Your task to perform on an android device: install app "DoorDash - Dasher" Image 0: 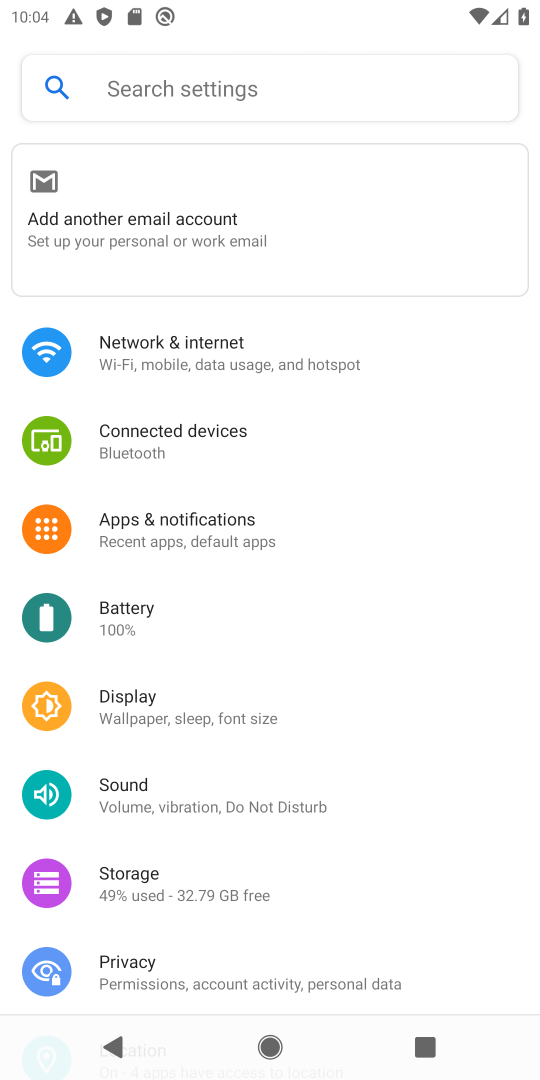
Step 0: press home button
Your task to perform on an android device: install app "DoorDash - Dasher" Image 1: 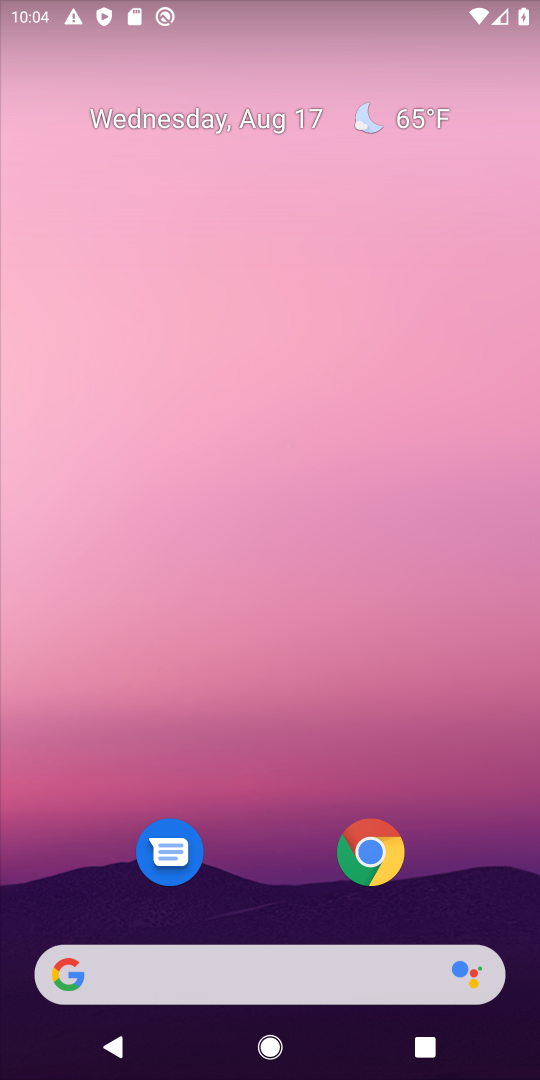
Step 1: drag from (501, 818) to (400, 75)
Your task to perform on an android device: install app "DoorDash - Dasher" Image 2: 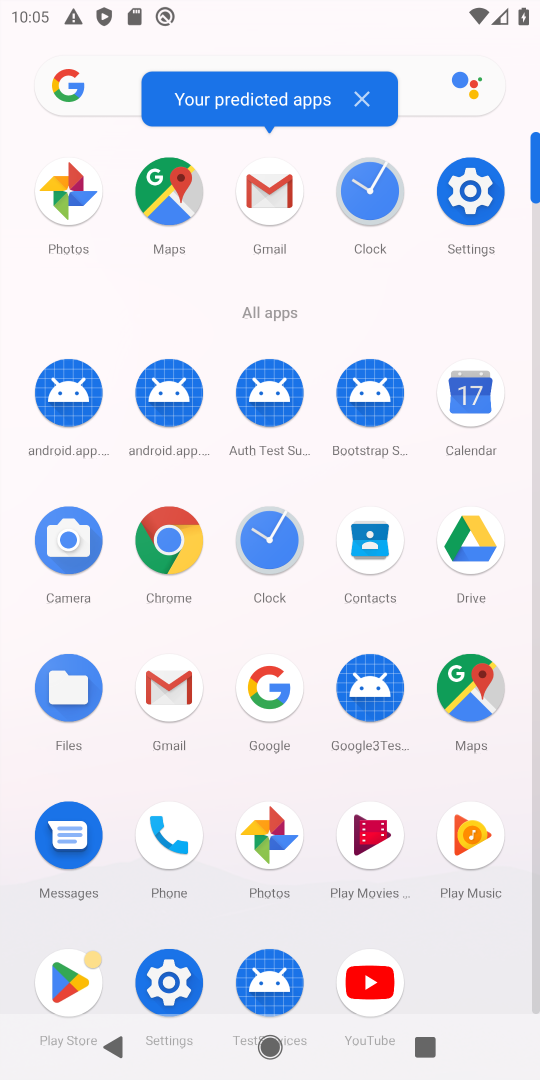
Step 2: click (97, 995)
Your task to perform on an android device: install app "DoorDash - Dasher" Image 3: 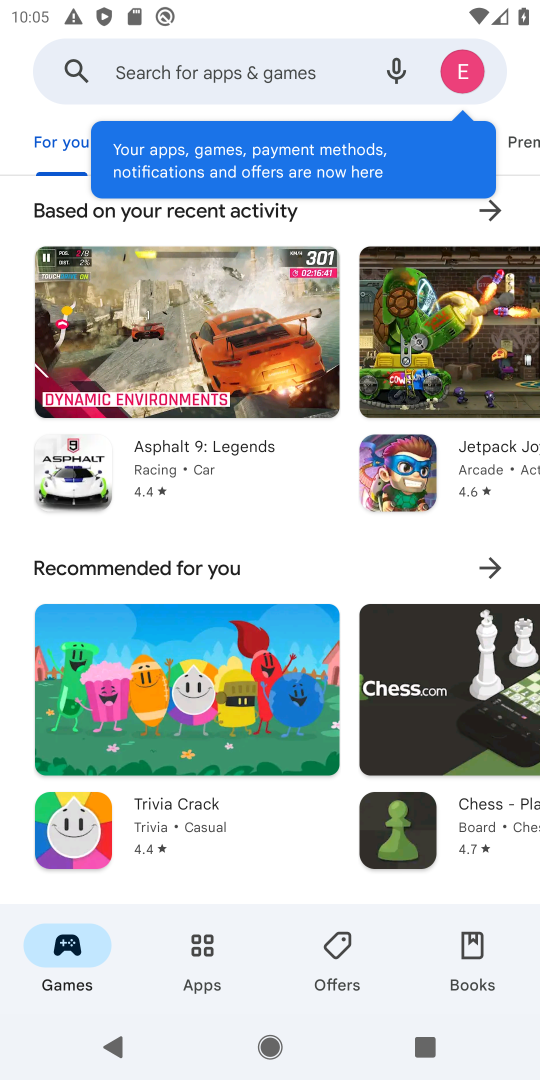
Step 3: click (252, 63)
Your task to perform on an android device: install app "DoorDash - Dasher" Image 4: 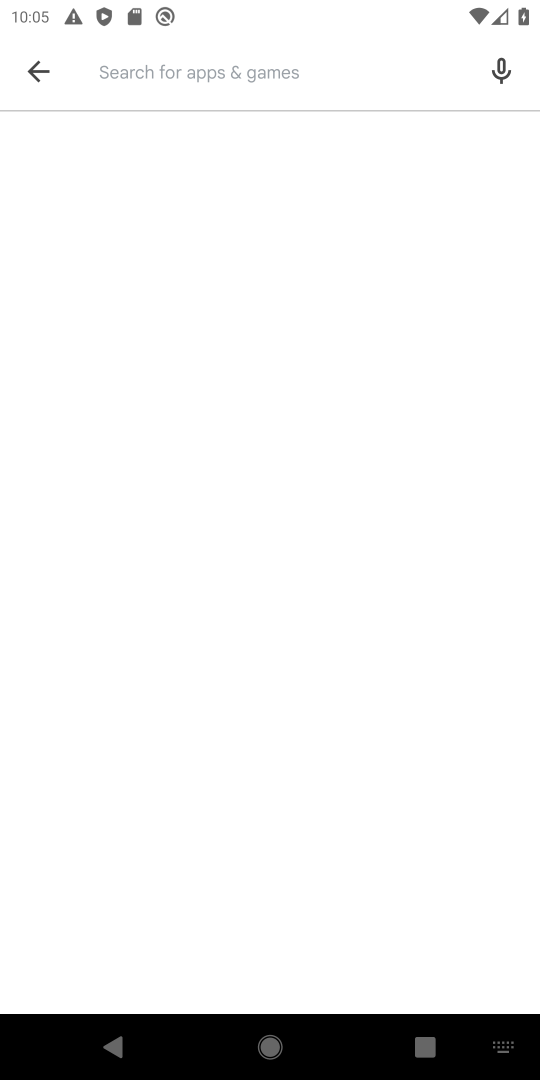
Step 4: type "doordash-dasher"
Your task to perform on an android device: install app "DoorDash - Dasher" Image 5: 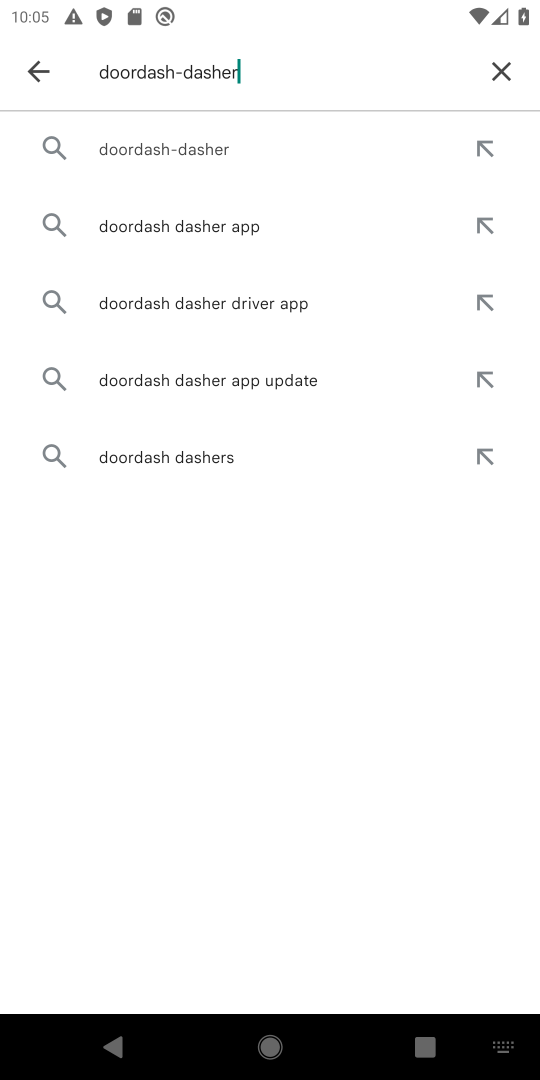
Step 5: click (282, 155)
Your task to perform on an android device: install app "DoorDash - Dasher" Image 6: 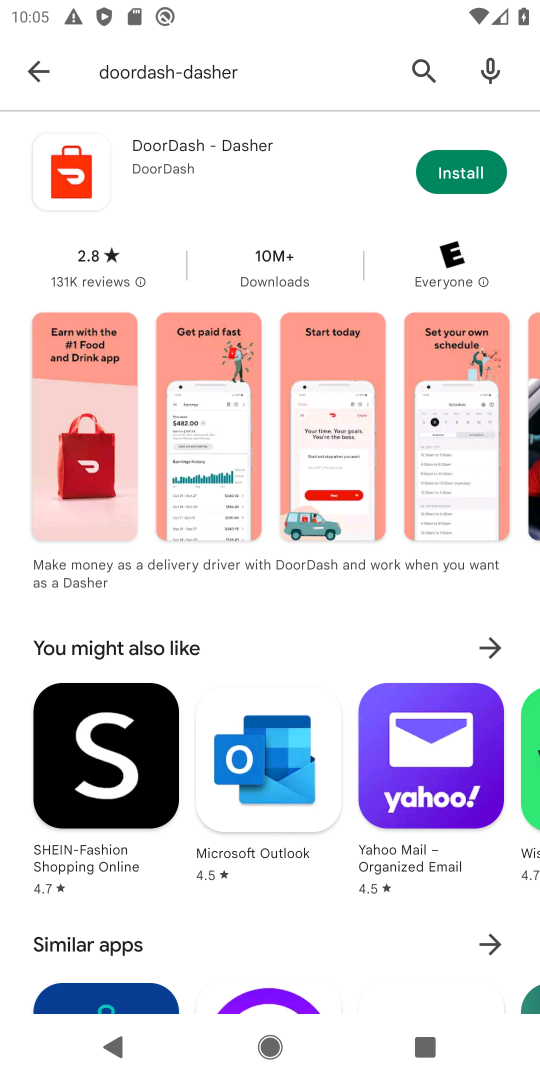
Step 6: click (439, 177)
Your task to perform on an android device: install app "DoorDash - Dasher" Image 7: 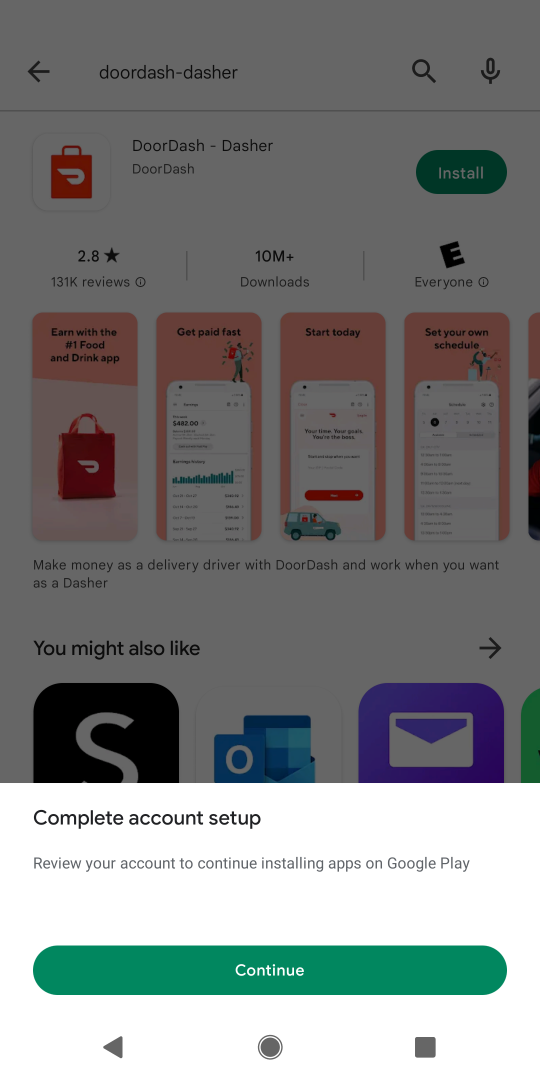
Step 7: click (306, 956)
Your task to perform on an android device: install app "DoorDash - Dasher" Image 8: 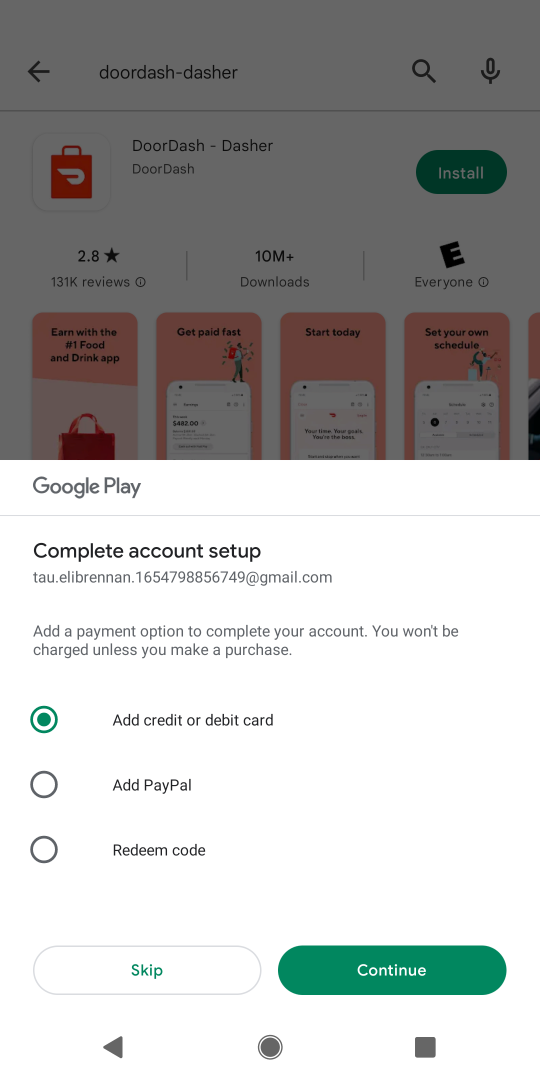
Step 8: click (100, 971)
Your task to perform on an android device: install app "DoorDash - Dasher" Image 9: 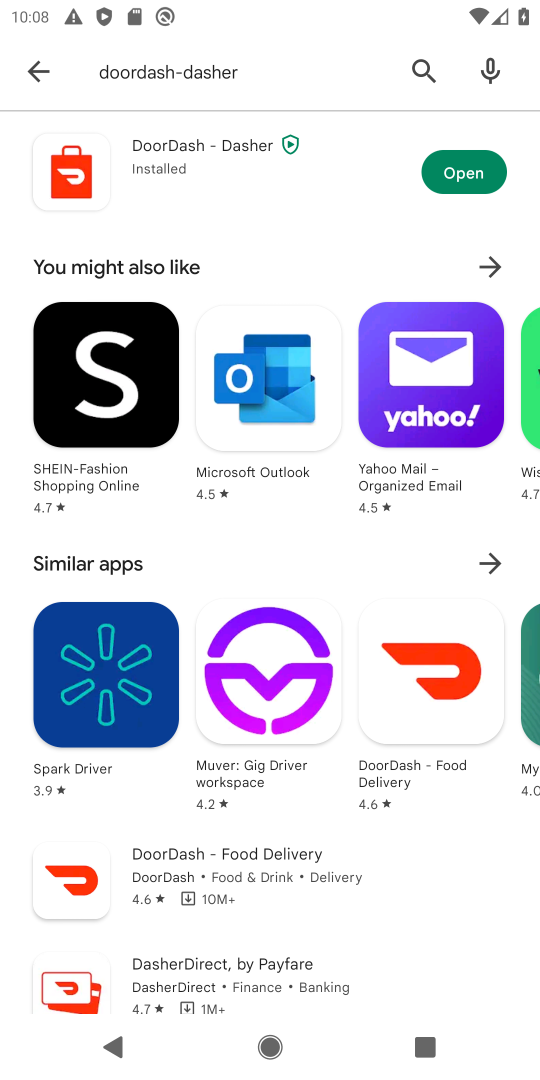
Step 9: task complete